Your task to perform on an android device: turn on airplane mode Image 0: 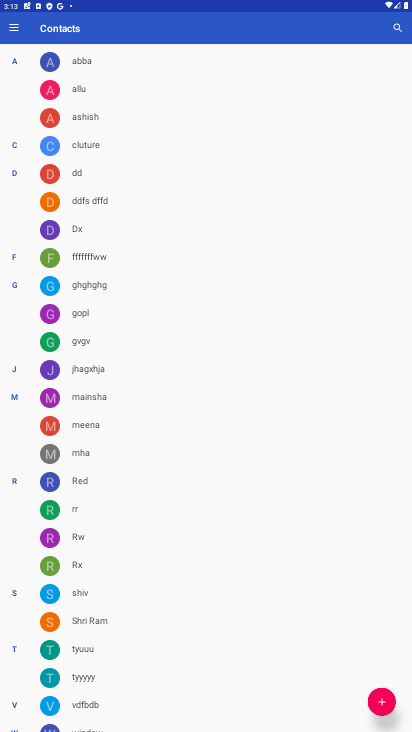
Step 0: drag from (233, 3) to (309, 435)
Your task to perform on an android device: turn on airplane mode Image 1: 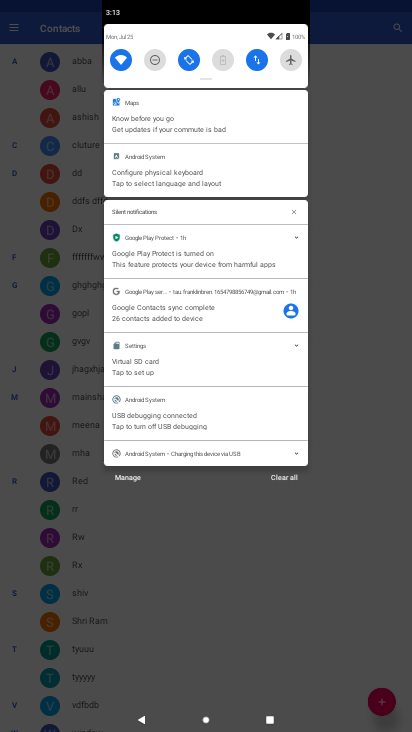
Step 1: click (293, 51)
Your task to perform on an android device: turn on airplane mode Image 2: 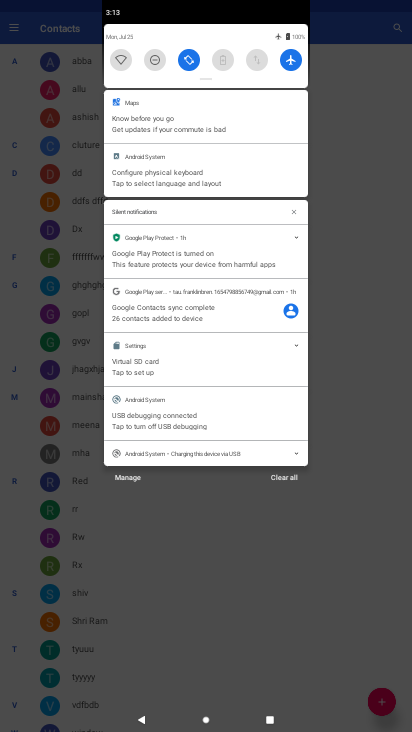
Step 2: click (293, 51)
Your task to perform on an android device: turn on airplane mode Image 3: 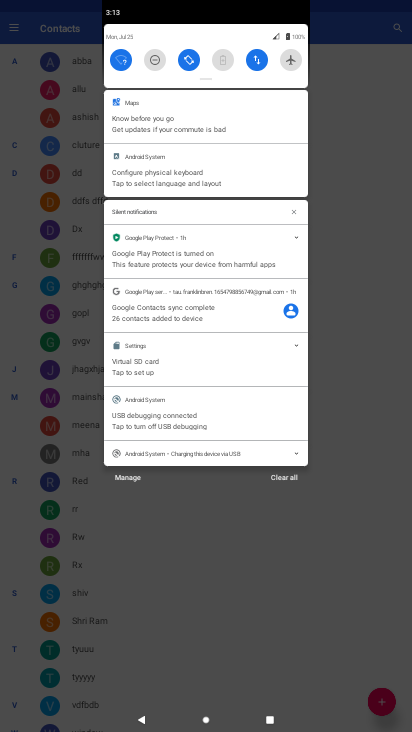
Step 3: task complete